Your task to perform on an android device: Open Reddit.com Image 0: 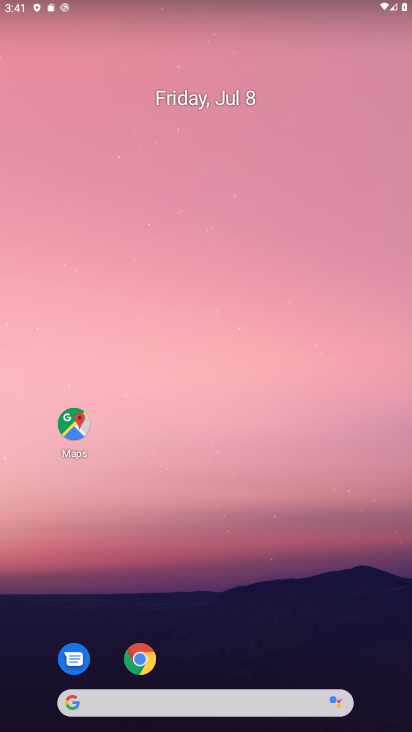
Step 0: click (129, 706)
Your task to perform on an android device: Open Reddit.com Image 1: 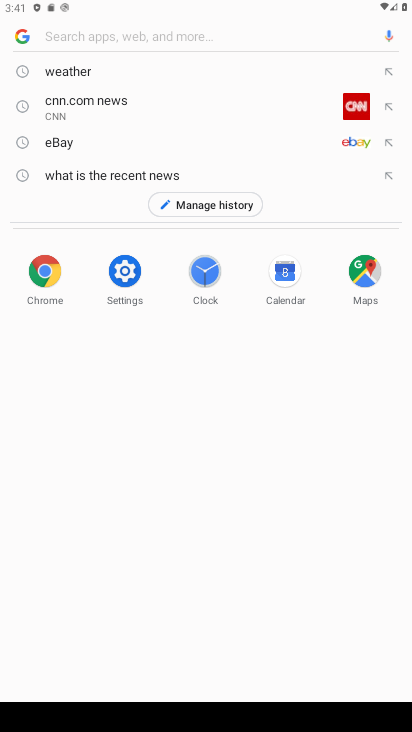
Step 1: click (223, 24)
Your task to perform on an android device: Open Reddit.com Image 2: 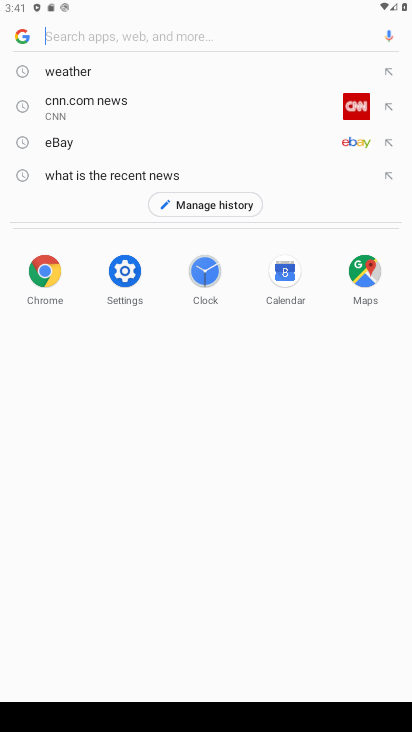
Step 2: type " Reddit.com"
Your task to perform on an android device: Open Reddit.com Image 3: 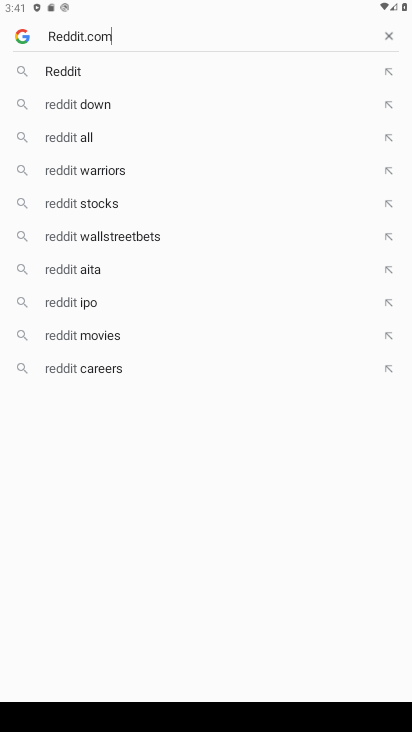
Step 3: type ""
Your task to perform on an android device: Open Reddit.com Image 4: 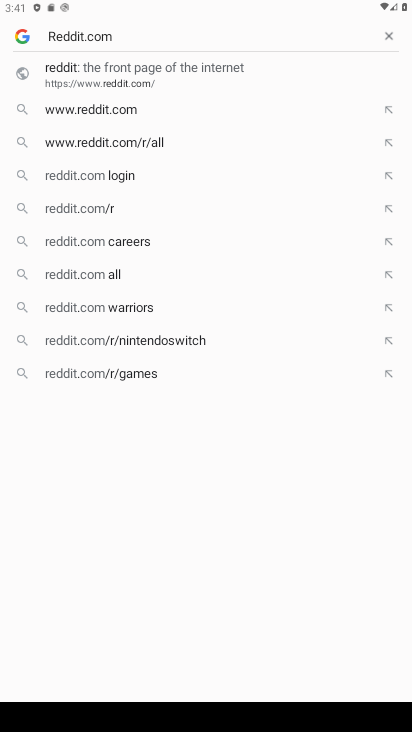
Step 4: click (153, 109)
Your task to perform on an android device: Open Reddit.com Image 5: 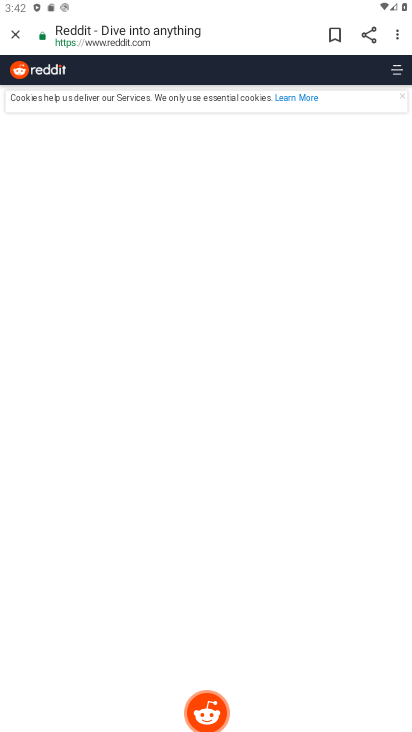
Step 5: task complete